Your task to perform on an android device: toggle notification dots Image 0: 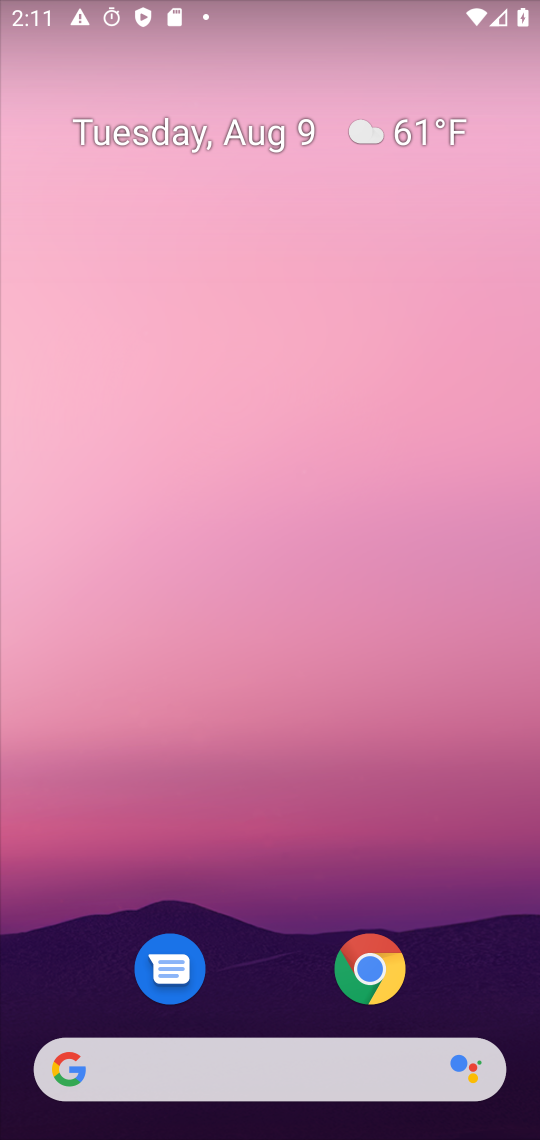
Step 0: drag from (326, 1120) to (191, 313)
Your task to perform on an android device: toggle notification dots Image 1: 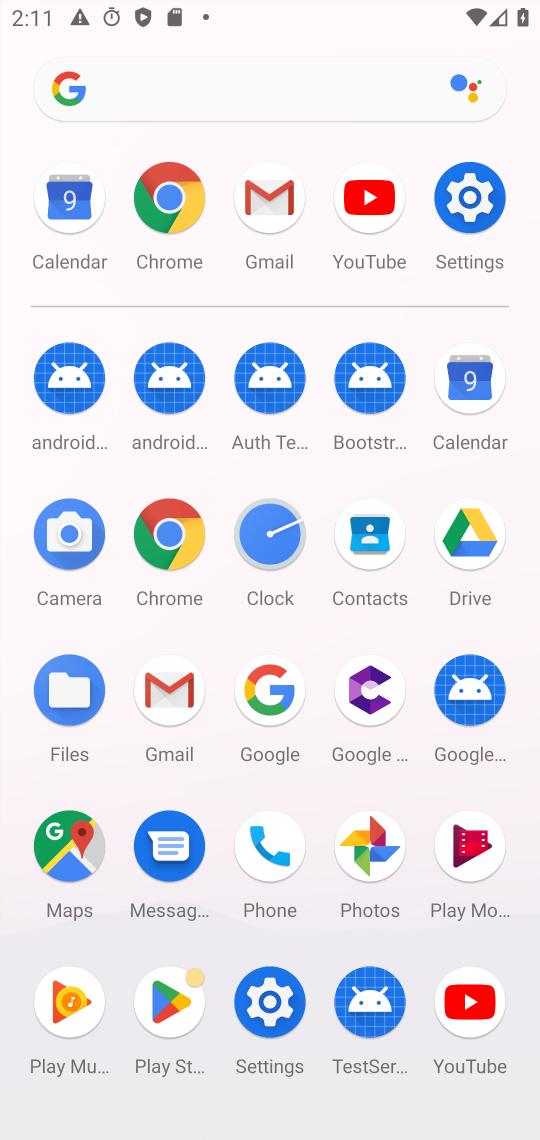
Step 1: click (473, 193)
Your task to perform on an android device: toggle notification dots Image 2: 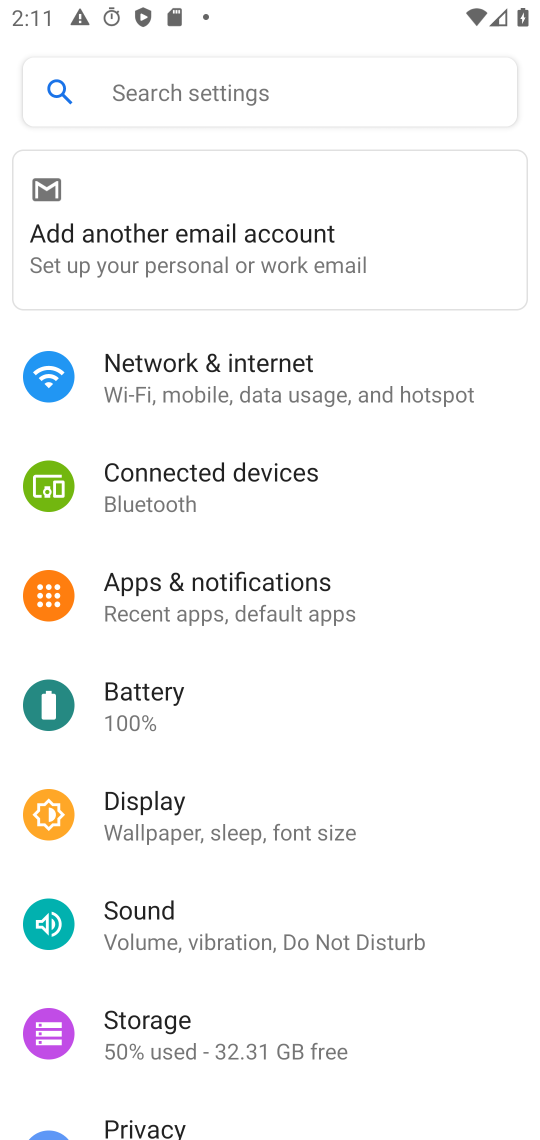
Step 2: click (265, 84)
Your task to perform on an android device: toggle notification dots Image 3: 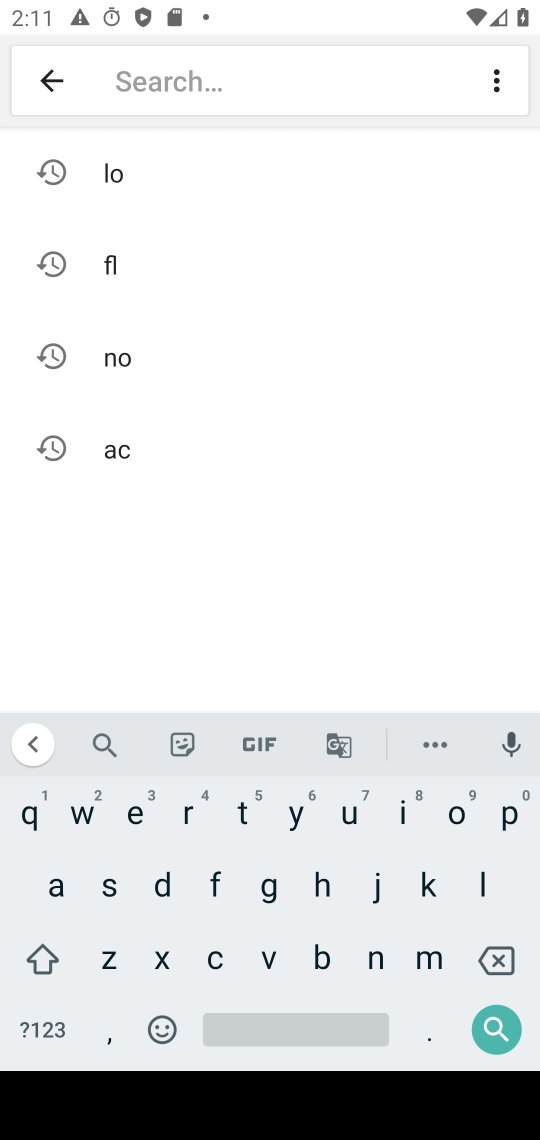
Step 3: click (160, 369)
Your task to perform on an android device: toggle notification dots Image 4: 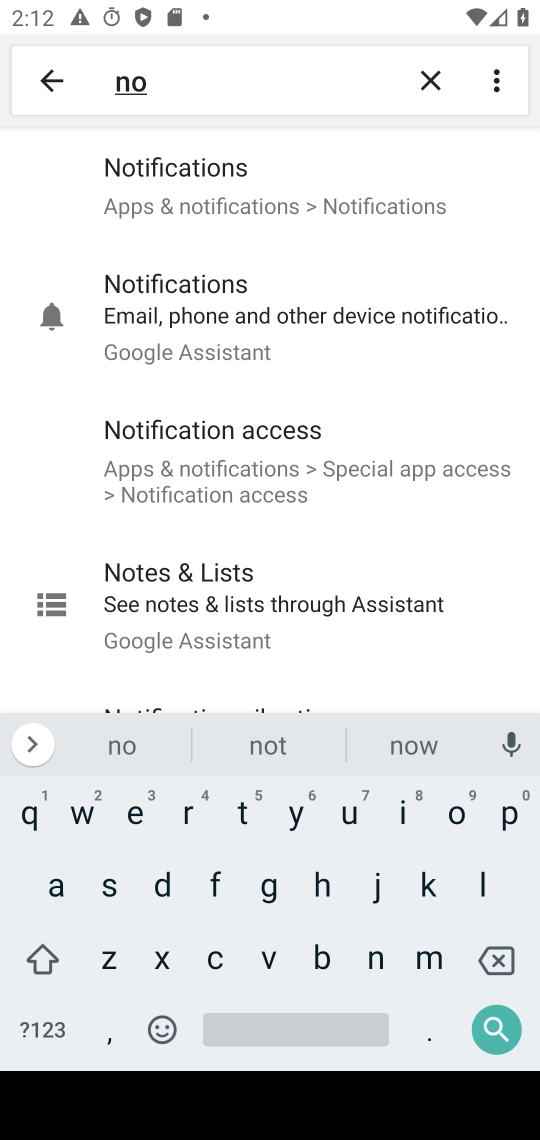
Step 4: click (251, 216)
Your task to perform on an android device: toggle notification dots Image 5: 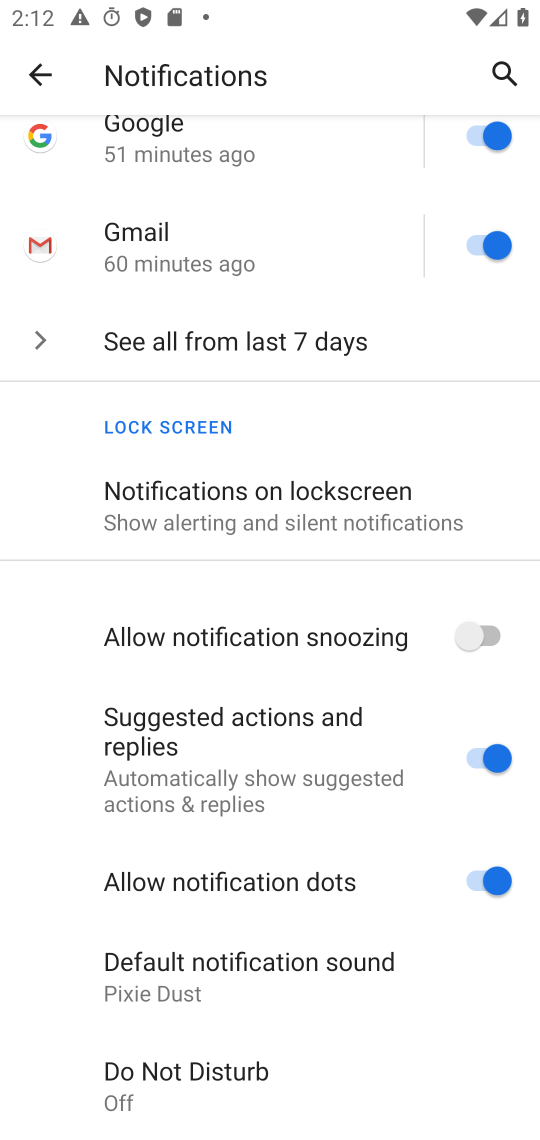
Step 5: click (412, 876)
Your task to perform on an android device: toggle notification dots Image 6: 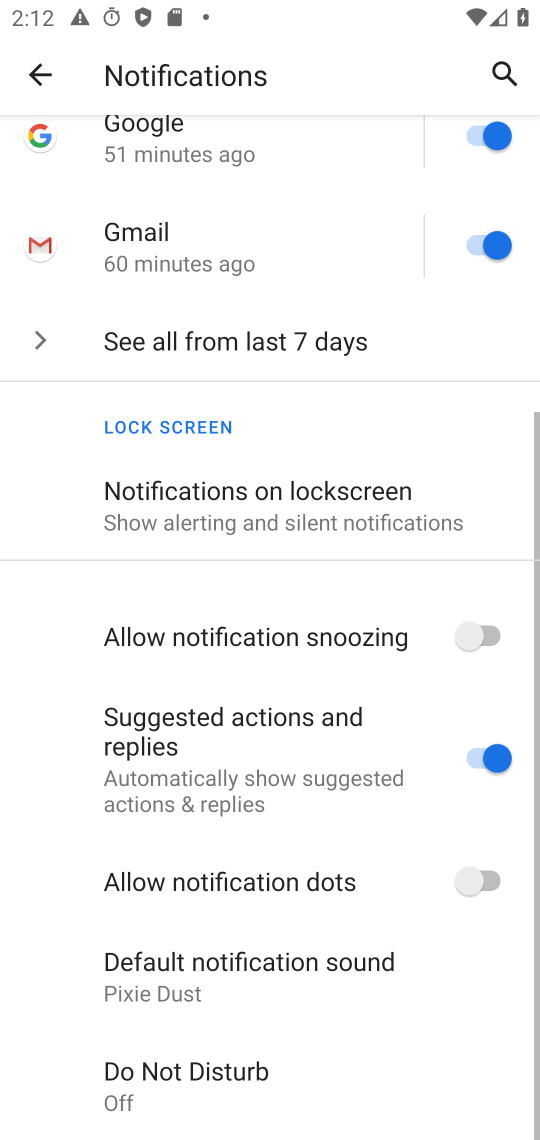
Step 6: click (412, 876)
Your task to perform on an android device: toggle notification dots Image 7: 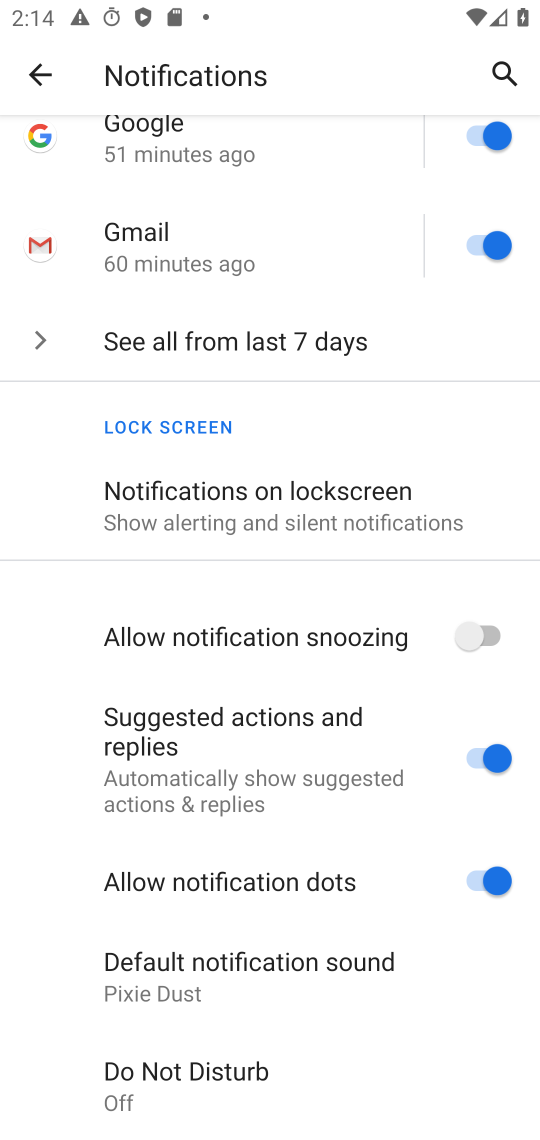
Step 7: task complete